Your task to perform on an android device: open a new tab in the chrome app Image 0: 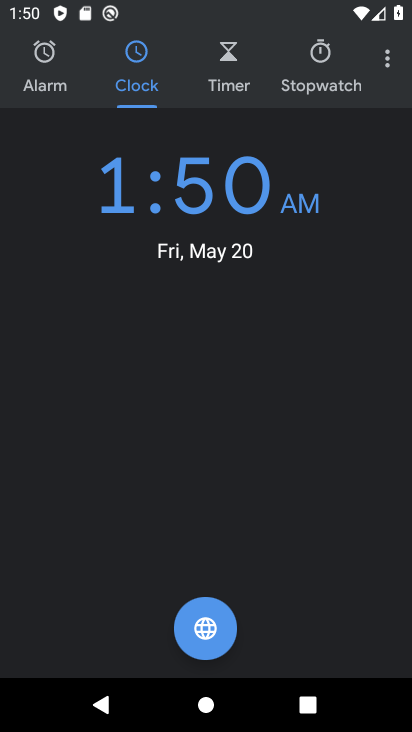
Step 0: press home button
Your task to perform on an android device: open a new tab in the chrome app Image 1: 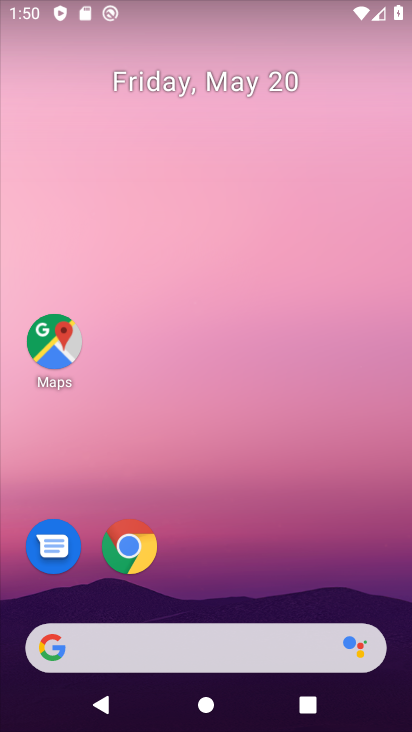
Step 1: click (114, 537)
Your task to perform on an android device: open a new tab in the chrome app Image 2: 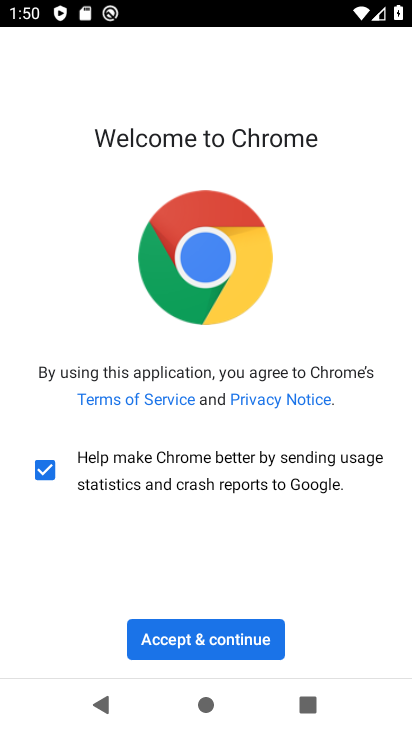
Step 2: click (191, 633)
Your task to perform on an android device: open a new tab in the chrome app Image 3: 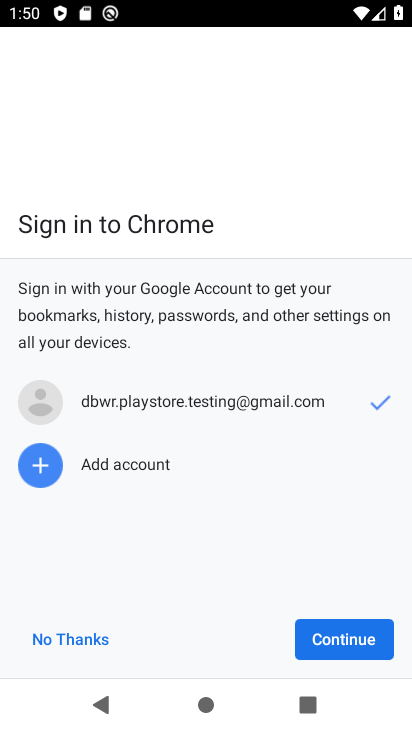
Step 3: click (305, 652)
Your task to perform on an android device: open a new tab in the chrome app Image 4: 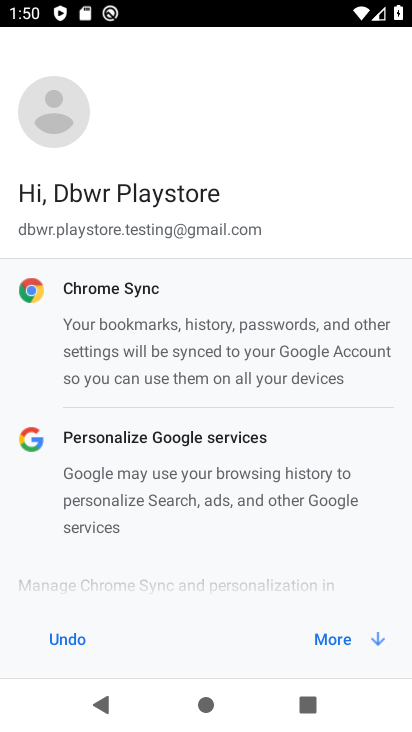
Step 4: click (327, 645)
Your task to perform on an android device: open a new tab in the chrome app Image 5: 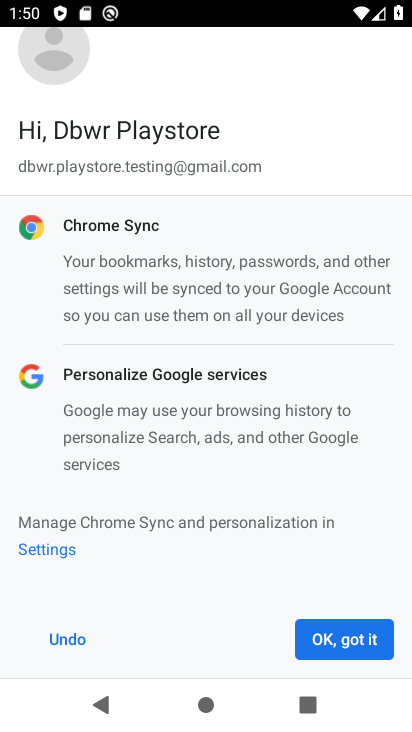
Step 5: click (327, 645)
Your task to perform on an android device: open a new tab in the chrome app Image 6: 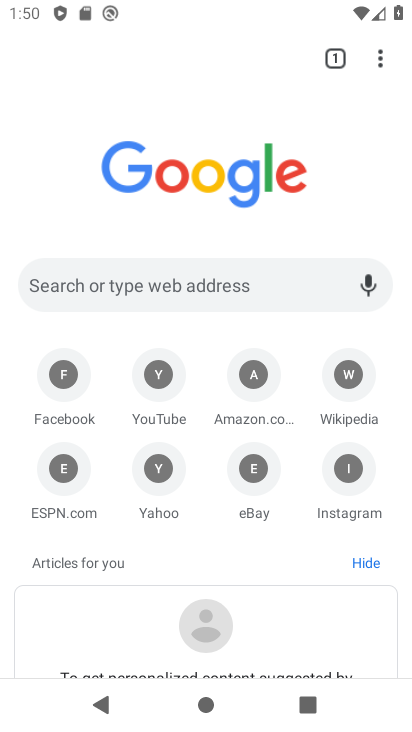
Step 6: click (321, 57)
Your task to perform on an android device: open a new tab in the chrome app Image 7: 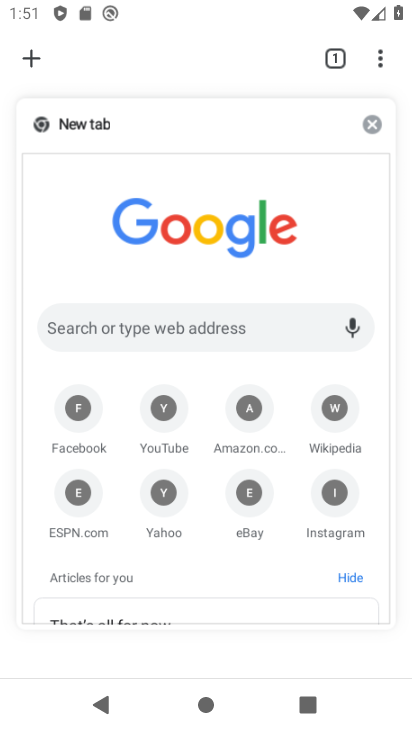
Step 7: click (21, 54)
Your task to perform on an android device: open a new tab in the chrome app Image 8: 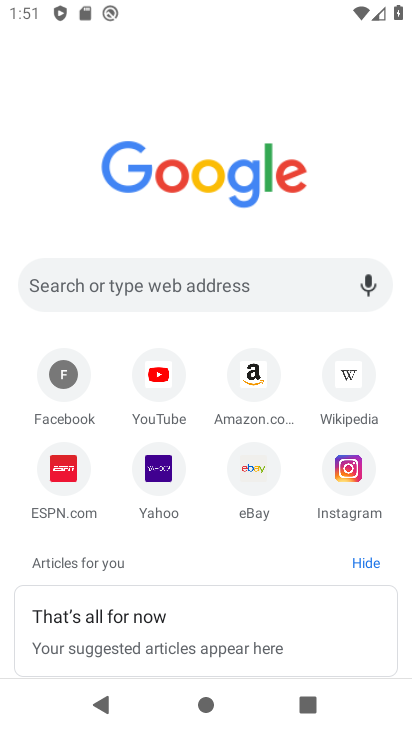
Step 8: task complete